Your task to perform on an android device: Open Chrome and go to settings Image 0: 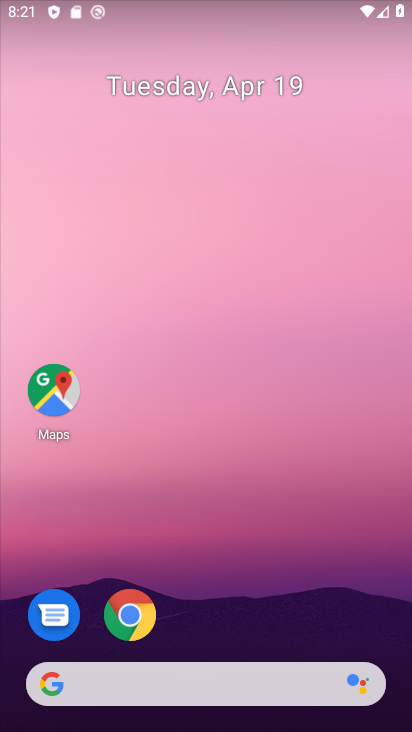
Step 0: click (138, 623)
Your task to perform on an android device: Open Chrome and go to settings Image 1: 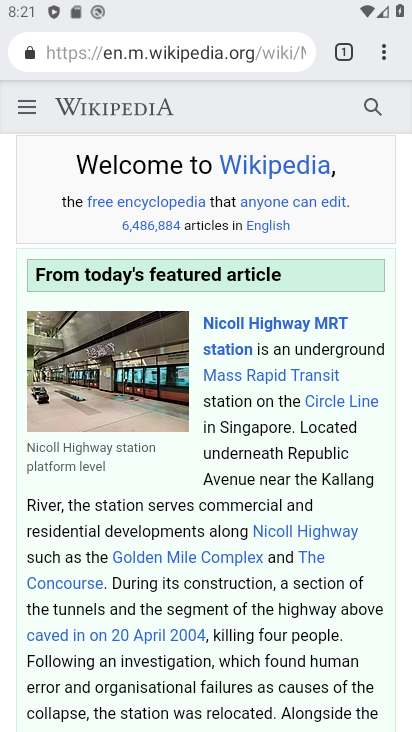
Step 1: click (385, 46)
Your task to perform on an android device: Open Chrome and go to settings Image 2: 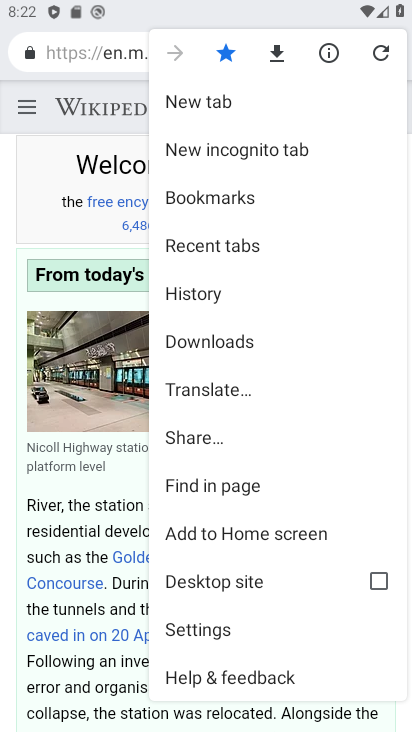
Step 2: click (215, 636)
Your task to perform on an android device: Open Chrome and go to settings Image 3: 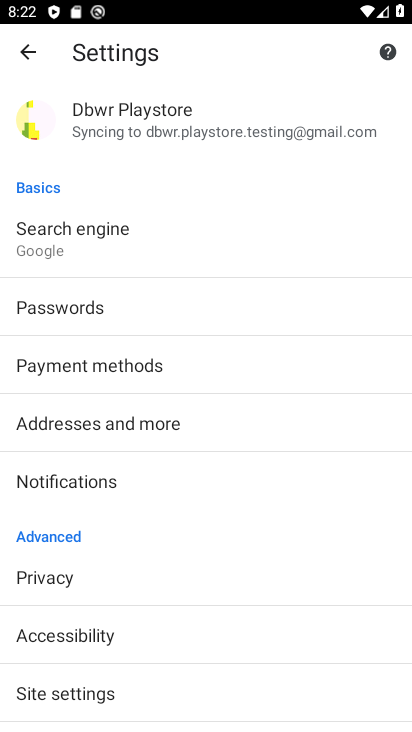
Step 3: task complete